Your task to perform on an android device: open a bookmark in the chrome app Image 0: 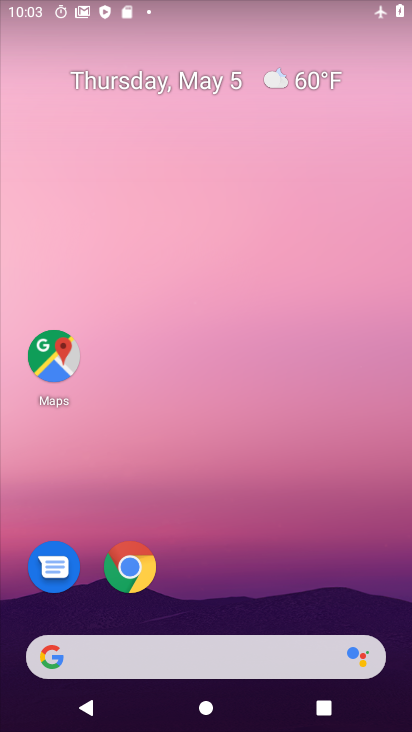
Step 0: drag from (302, 581) to (353, 51)
Your task to perform on an android device: open a bookmark in the chrome app Image 1: 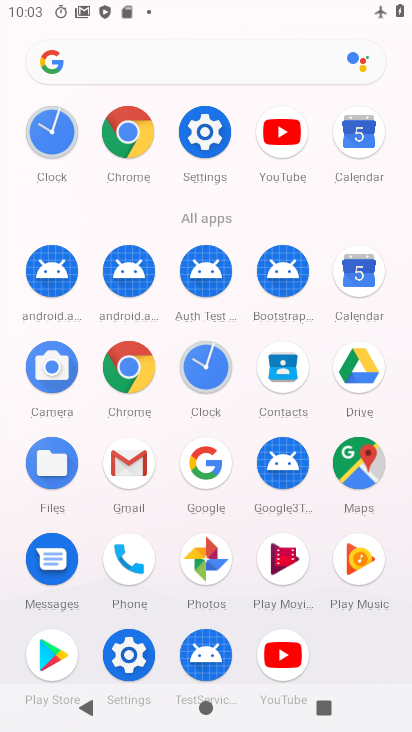
Step 1: click (143, 142)
Your task to perform on an android device: open a bookmark in the chrome app Image 2: 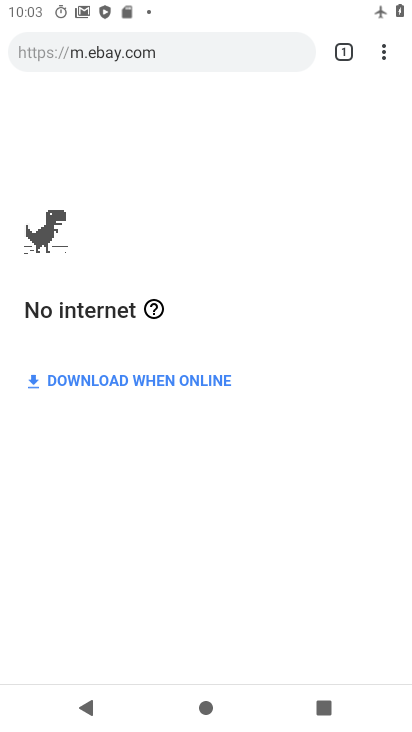
Step 2: task complete